Your task to perform on an android device: What is the recent news? Image 0: 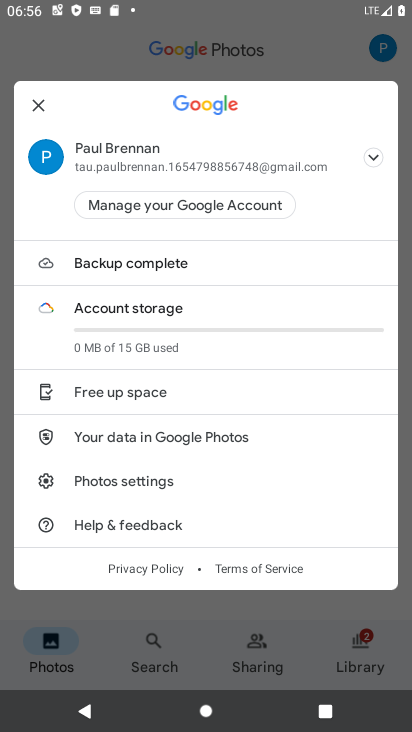
Step 0: press home button
Your task to perform on an android device: What is the recent news? Image 1: 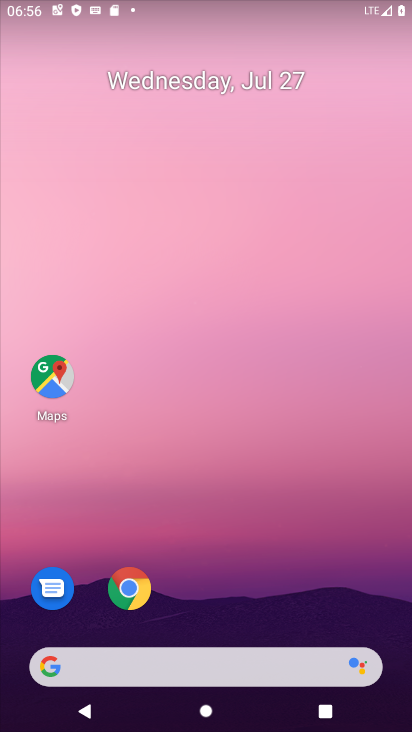
Step 1: drag from (254, 645) to (367, 5)
Your task to perform on an android device: What is the recent news? Image 2: 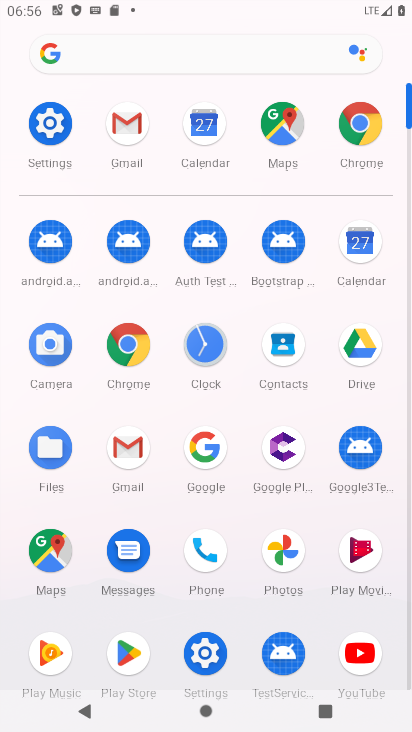
Step 2: click (137, 338)
Your task to perform on an android device: What is the recent news? Image 3: 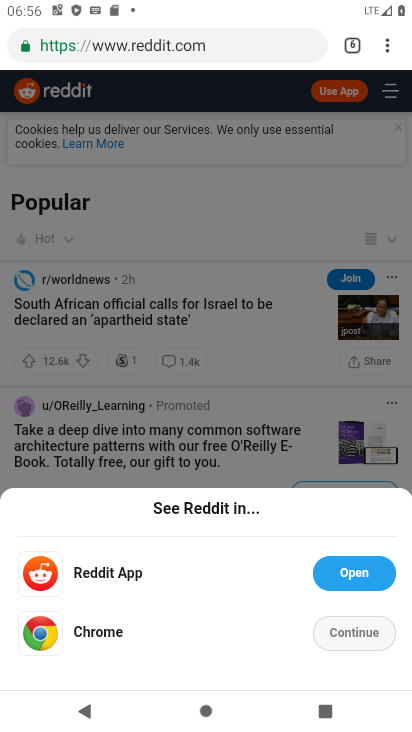
Step 3: click (211, 31)
Your task to perform on an android device: What is the recent news? Image 4: 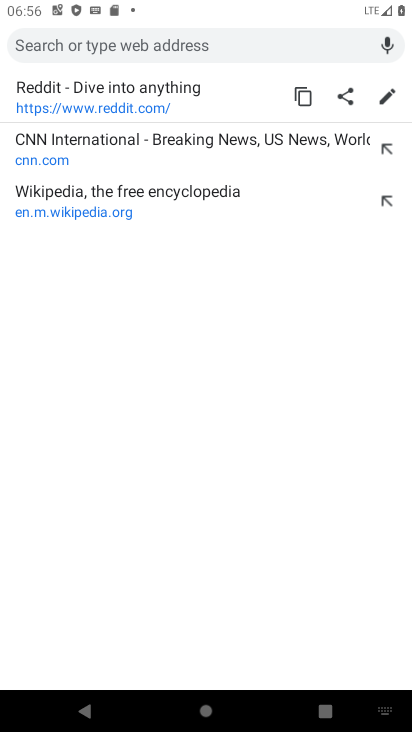
Step 4: press home button
Your task to perform on an android device: What is the recent news? Image 5: 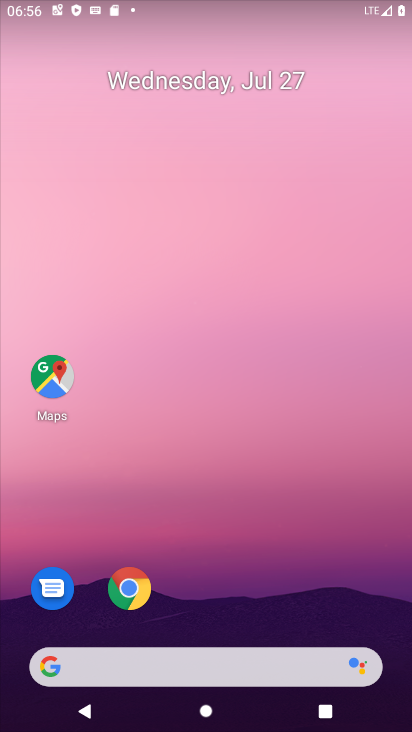
Step 5: drag from (171, 644) to (306, 13)
Your task to perform on an android device: What is the recent news? Image 6: 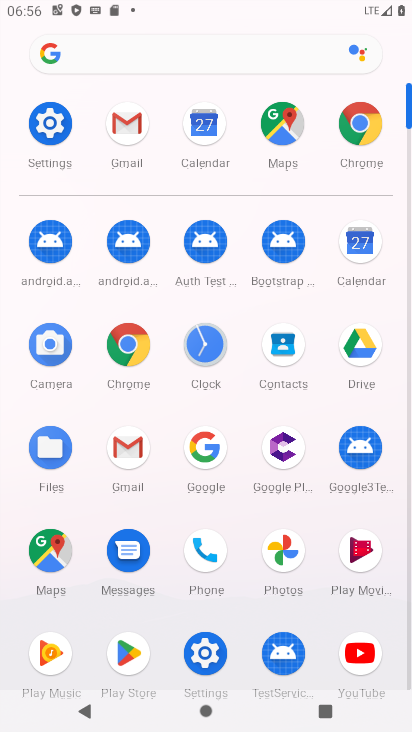
Step 6: click (199, 454)
Your task to perform on an android device: What is the recent news? Image 7: 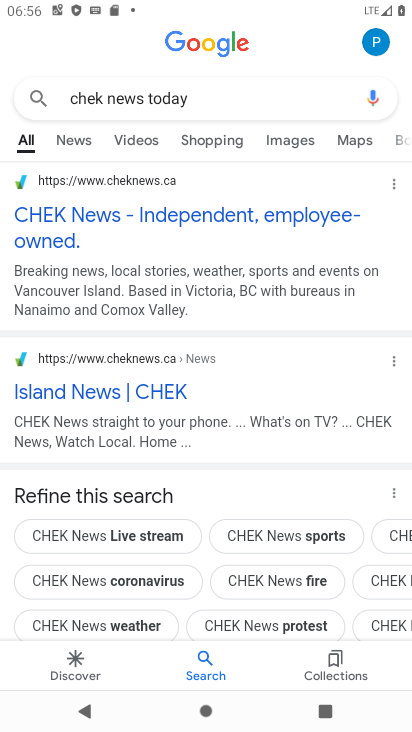
Step 7: click (239, 97)
Your task to perform on an android device: What is the recent news? Image 8: 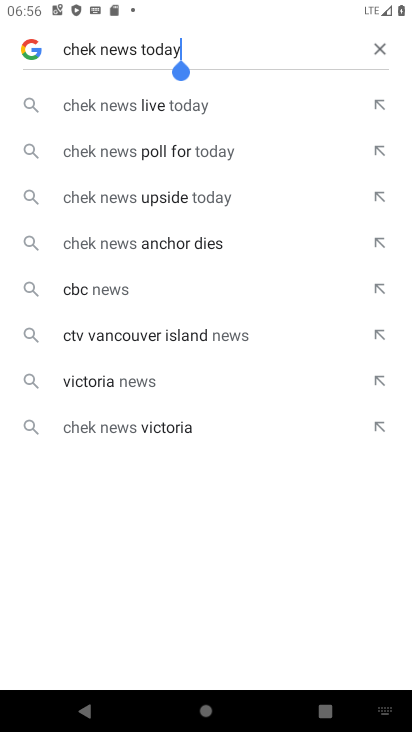
Step 8: click (372, 53)
Your task to perform on an android device: What is the recent news? Image 9: 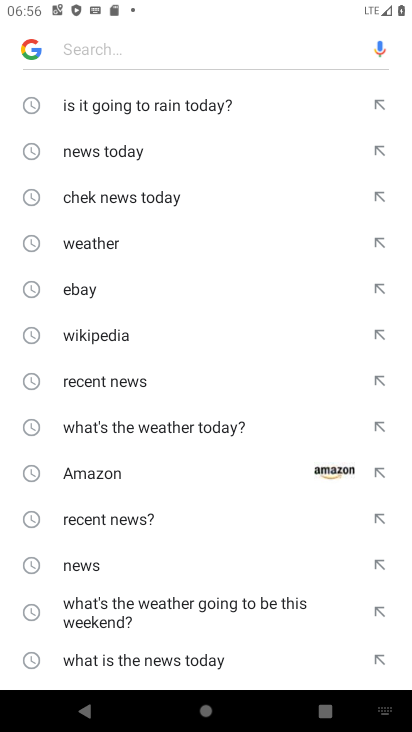
Step 9: type "recent news"
Your task to perform on an android device: What is the recent news? Image 10: 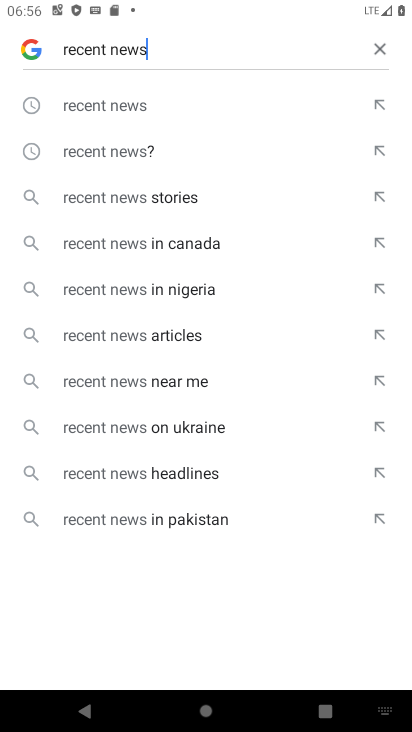
Step 10: click (130, 105)
Your task to perform on an android device: What is the recent news? Image 11: 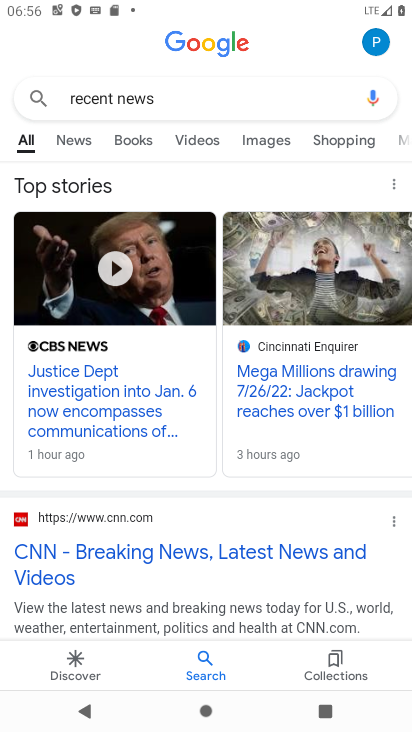
Step 11: task complete